Your task to perform on an android device: Find coffee shops on Maps Image 0: 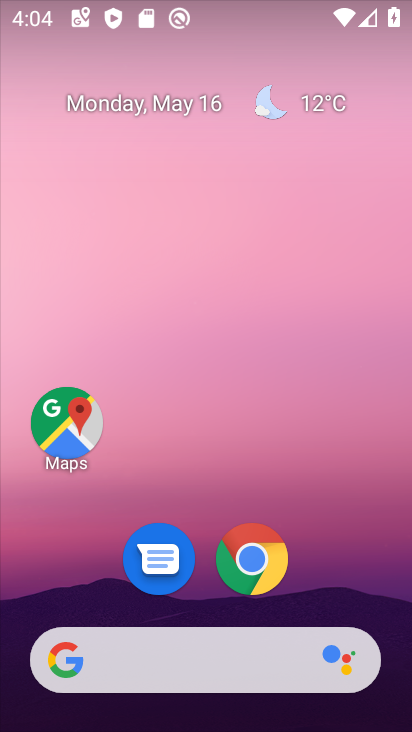
Step 0: click (270, 576)
Your task to perform on an android device: Find coffee shops on Maps Image 1: 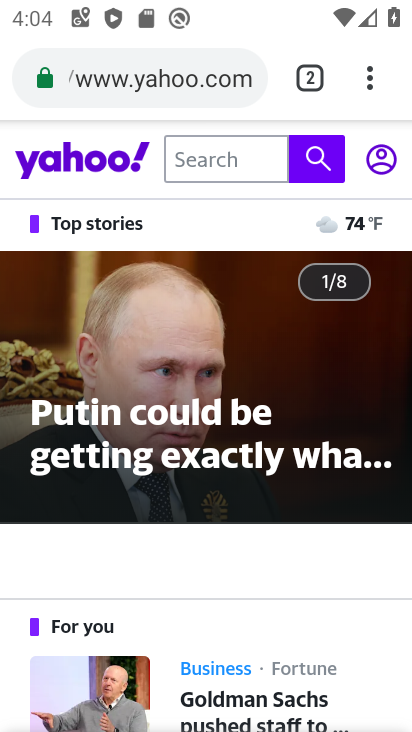
Step 1: press home button
Your task to perform on an android device: Find coffee shops on Maps Image 2: 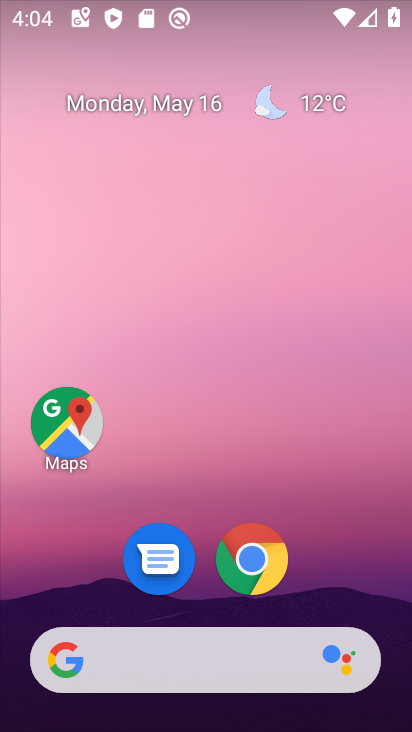
Step 2: click (60, 430)
Your task to perform on an android device: Find coffee shops on Maps Image 3: 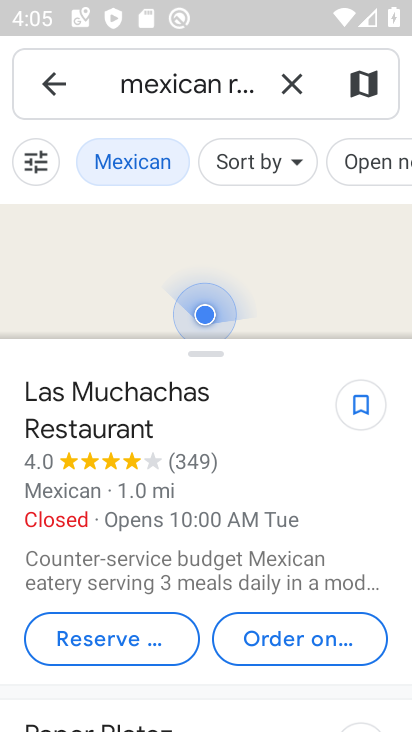
Step 3: click (302, 84)
Your task to perform on an android device: Find coffee shops on Maps Image 4: 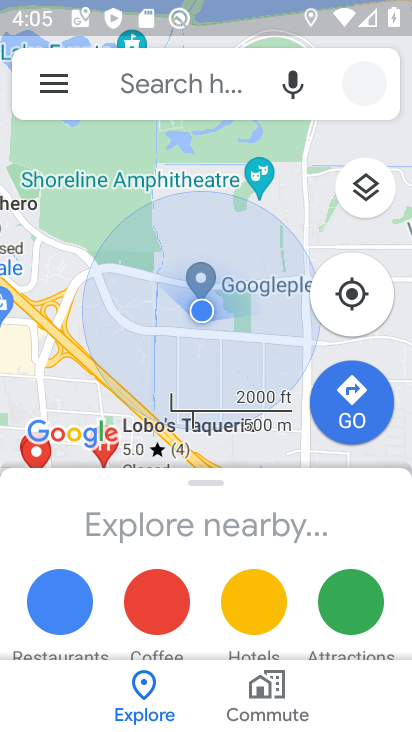
Step 4: click (170, 90)
Your task to perform on an android device: Find coffee shops on Maps Image 5: 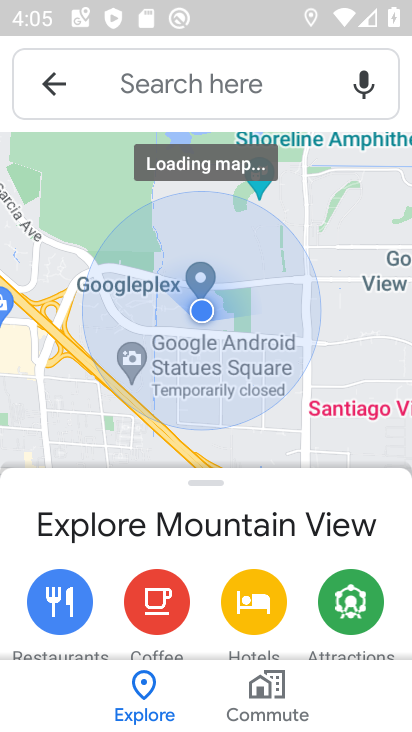
Step 5: click (170, 90)
Your task to perform on an android device: Find coffee shops on Maps Image 6: 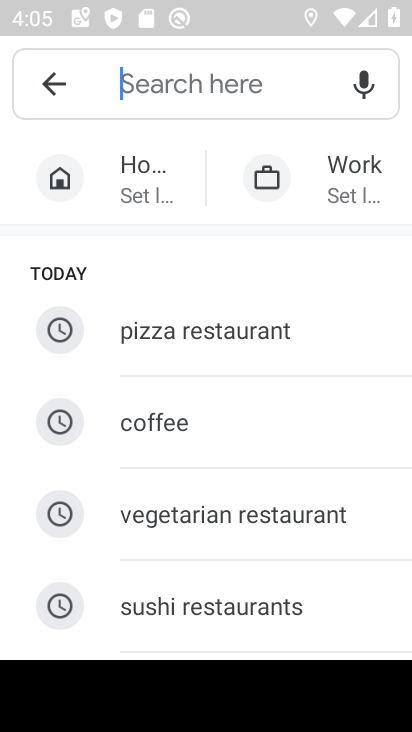
Step 6: click (260, 407)
Your task to perform on an android device: Find coffee shops on Maps Image 7: 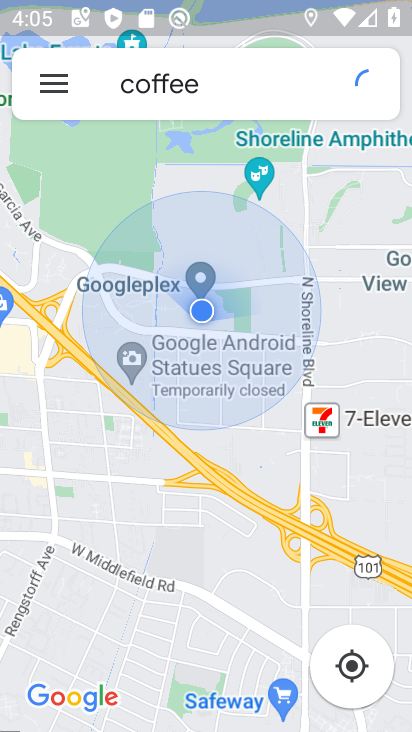
Step 7: task complete